Your task to perform on an android device: read, delete, or share a saved page in the chrome app Image 0: 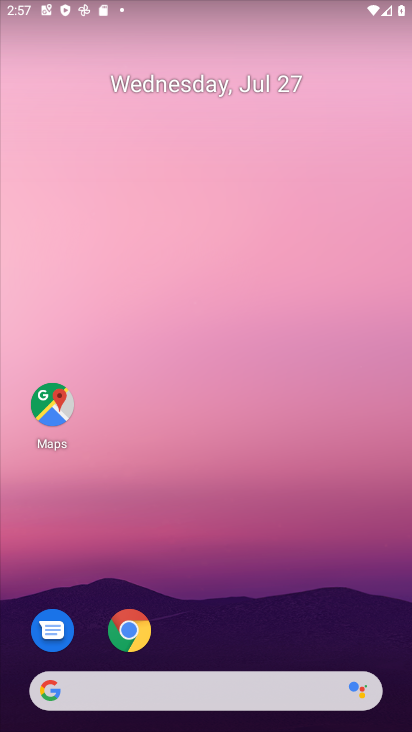
Step 0: click (130, 620)
Your task to perform on an android device: read, delete, or share a saved page in the chrome app Image 1: 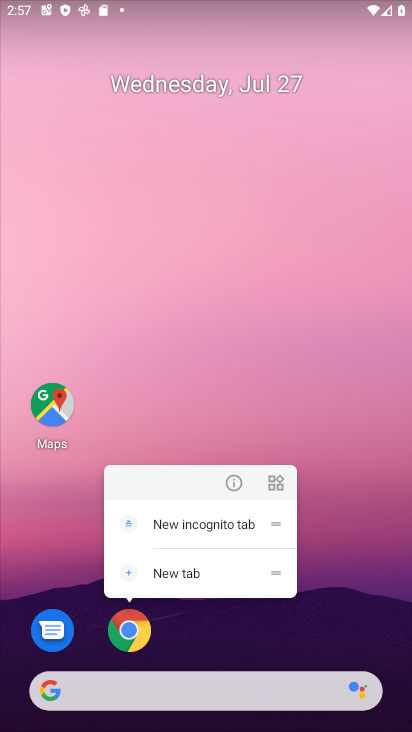
Step 1: click (130, 628)
Your task to perform on an android device: read, delete, or share a saved page in the chrome app Image 2: 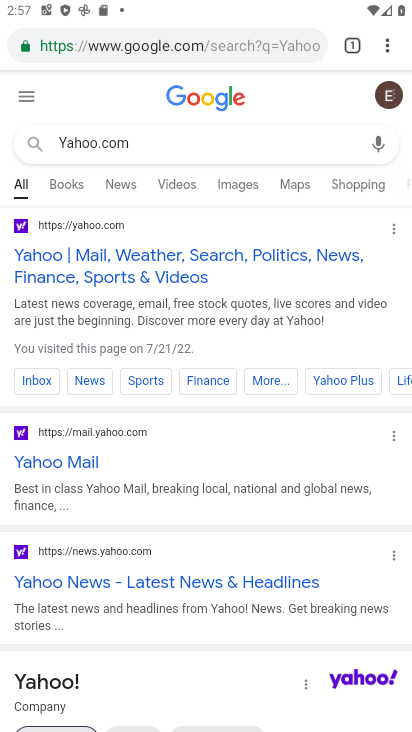
Step 2: click (383, 51)
Your task to perform on an android device: read, delete, or share a saved page in the chrome app Image 3: 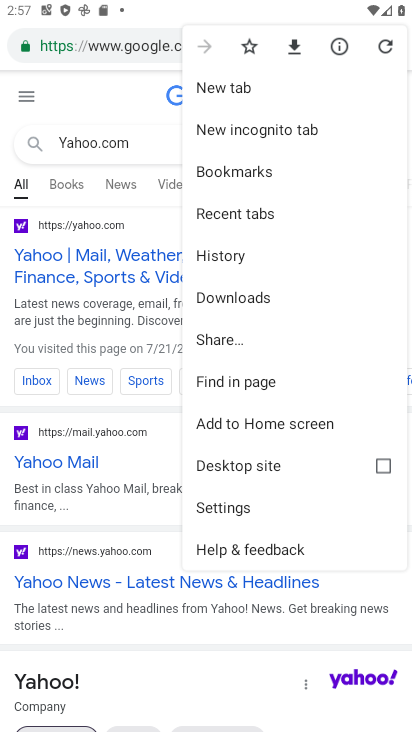
Step 3: click (220, 294)
Your task to perform on an android device: read, delete, or share a saved page in the chrome app Image 4: 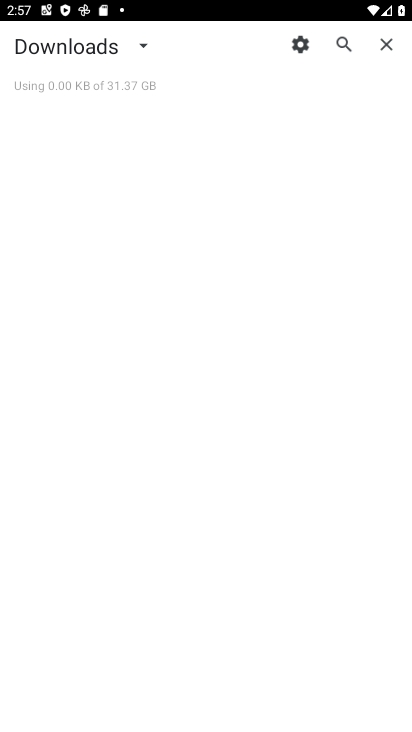
Step 4: task complete